Your task to perform on an android device: delete the emails in spam in the gmail app Image 0: 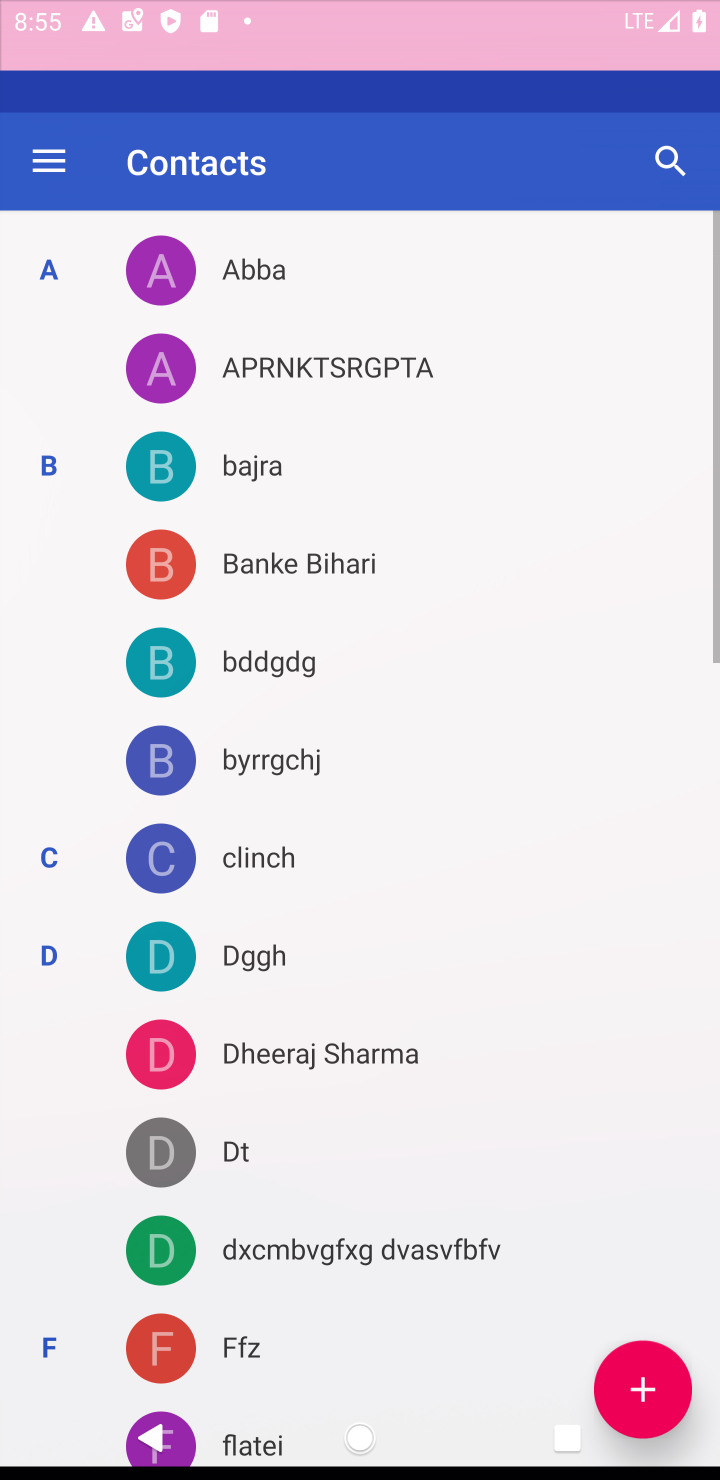
Step 0: click (593, 95)
Your task to perform on an android device: delete the emails in spam in the gmail app Image 1: 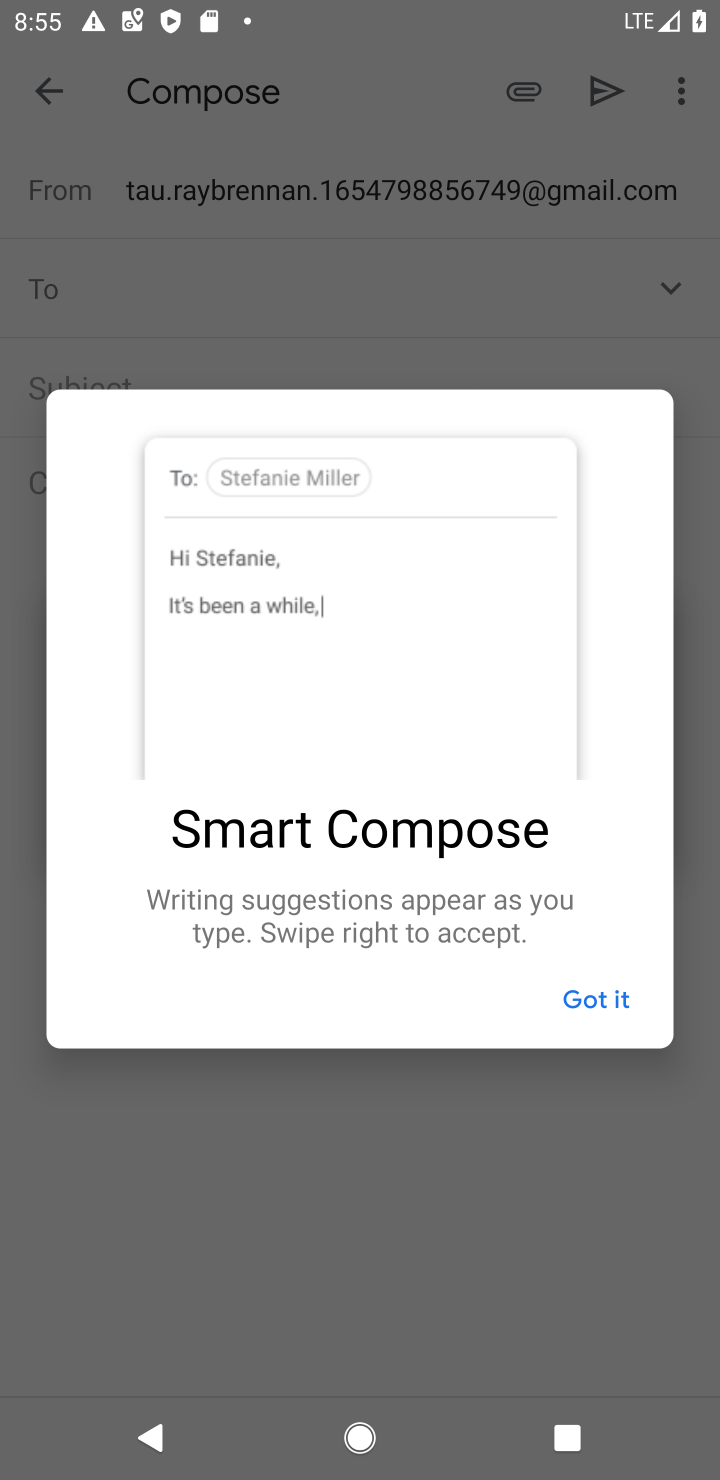
Step 1: click (607, 1009)
Your task to perform on an android device: delete the emails in spam in the gmail app Image 2: 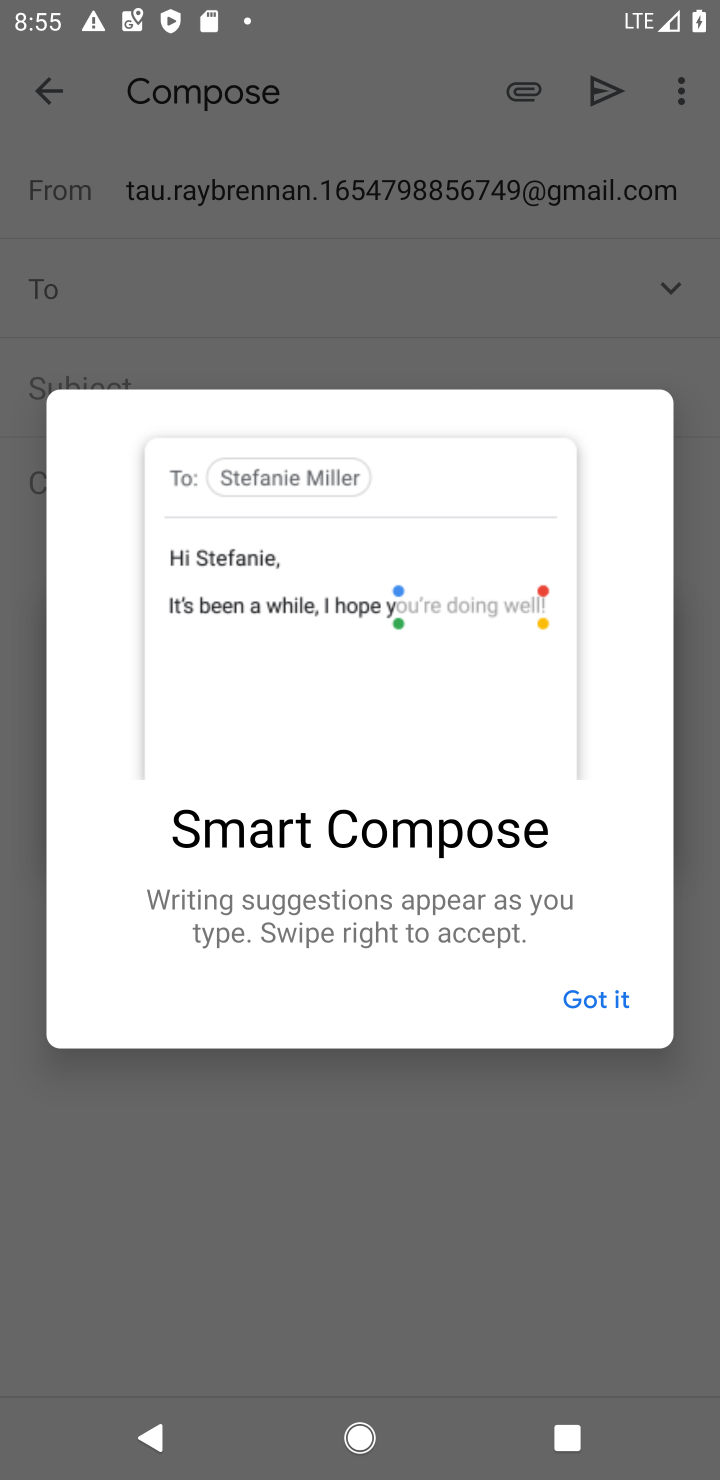
Step 2: press back button
Your task to perform on an android device: delete the emails in spam in the gmail app Image 3: 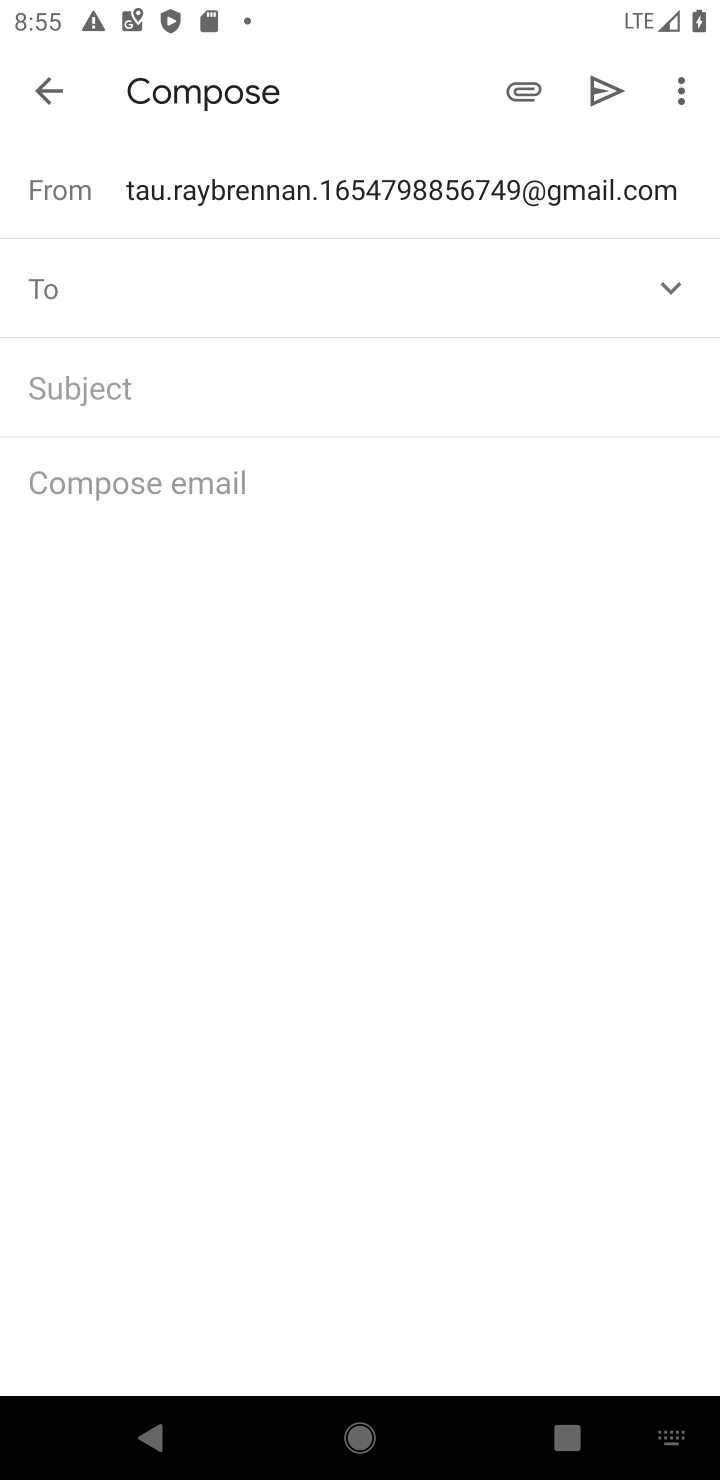
Step 3: press back button
Your task to perform on an android device: delete the emails in spam in the gmail app Image 4: 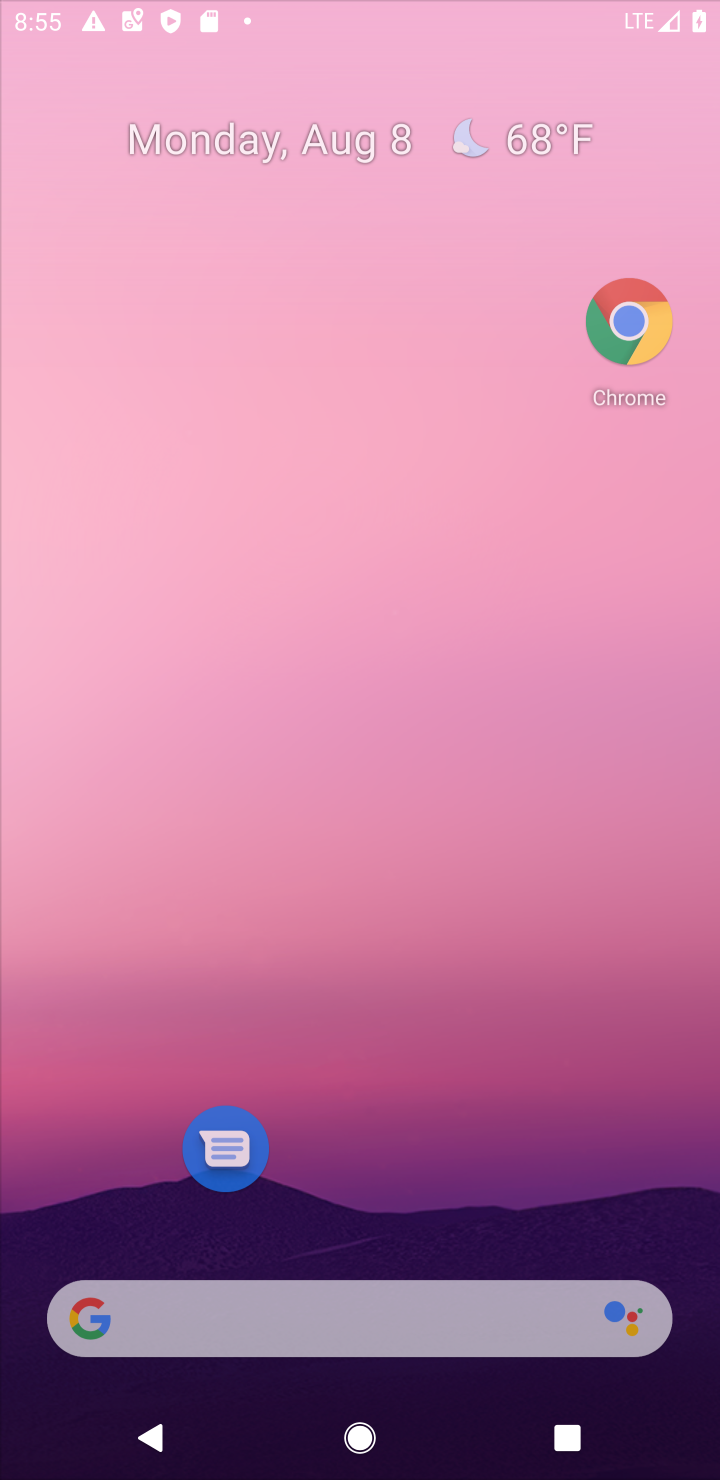
Step 4: press home button
Your task to perform on an android device: delete the emails in spam in the gmail app Image 5: 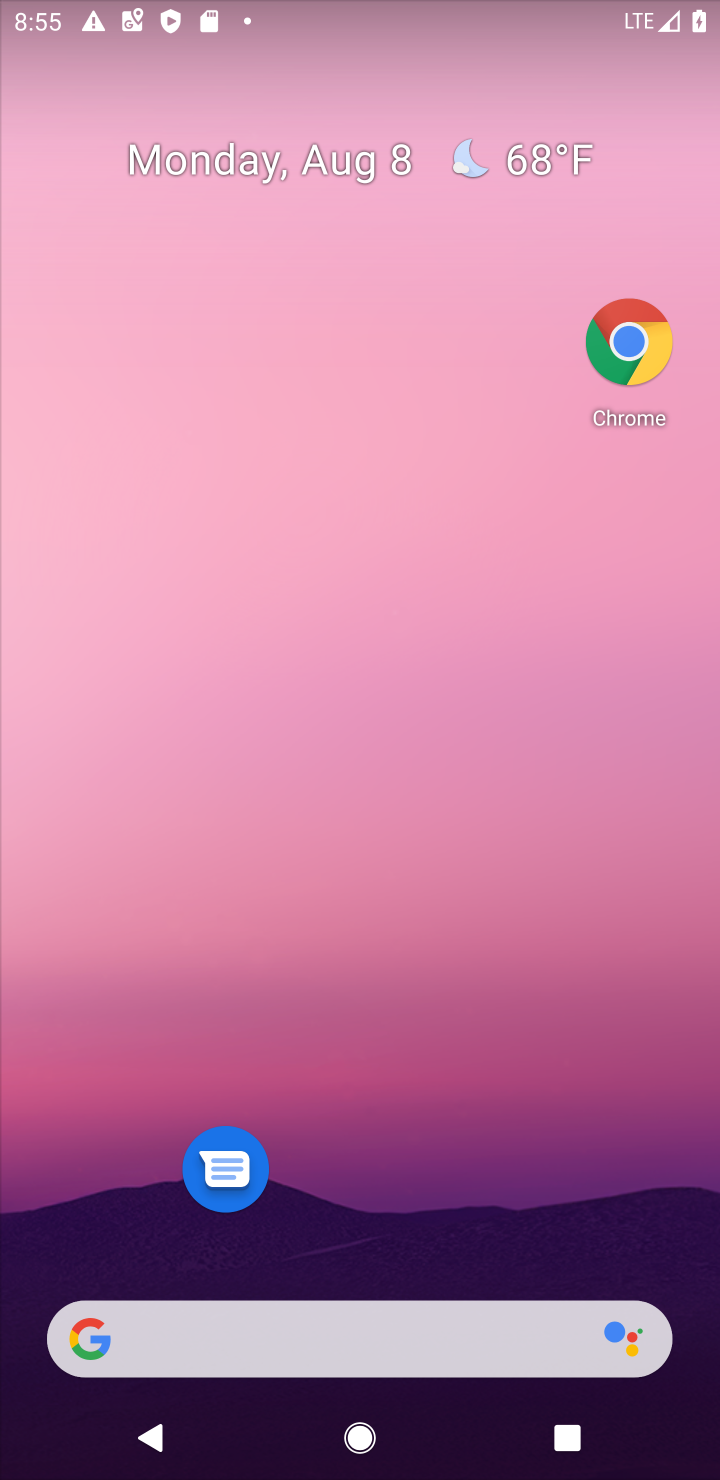
Step 5: drag from (503, 821) to (697, 148)
Your task to perform on an android device: delete the emails in spam in the gmail app Image 6: 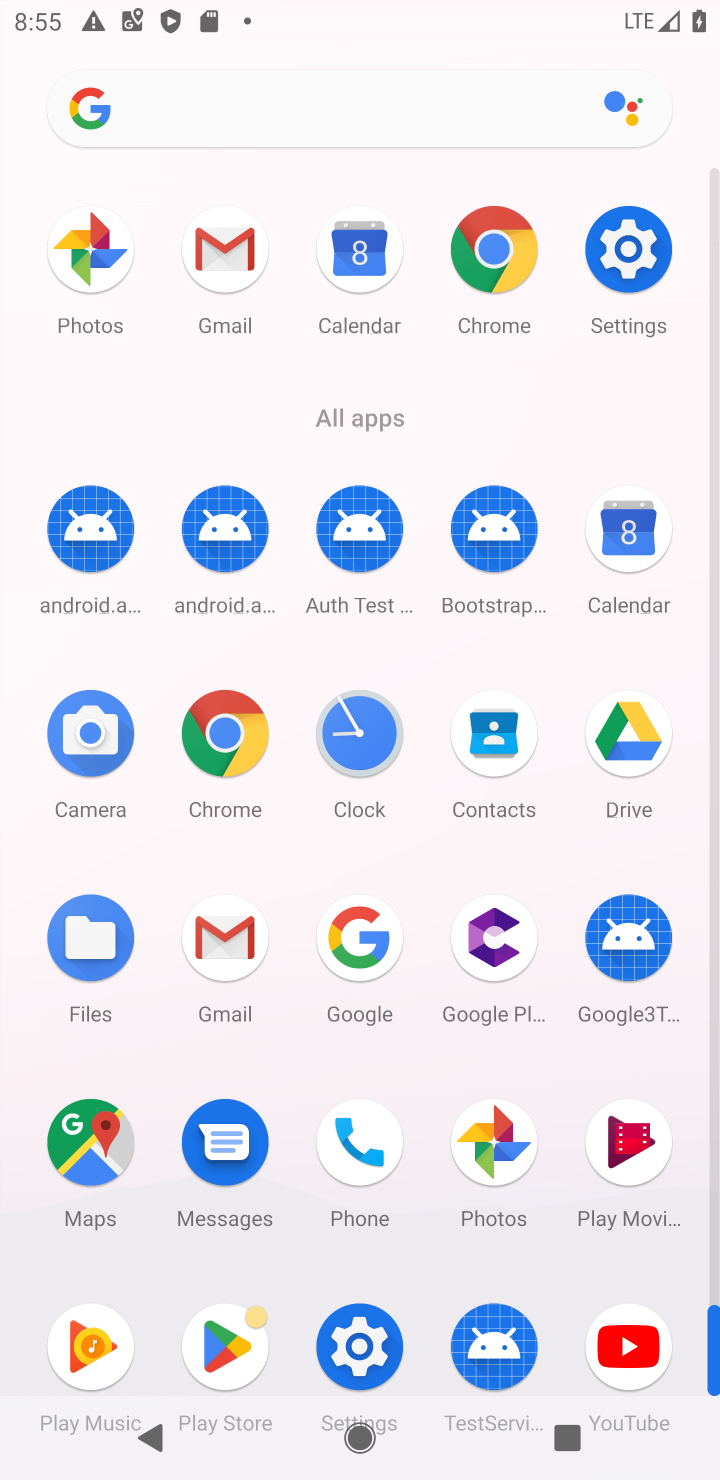
Step 6: click (240, 239)
Your task to perform on an android device: delete the emails in spam in the gmail app Image 7: 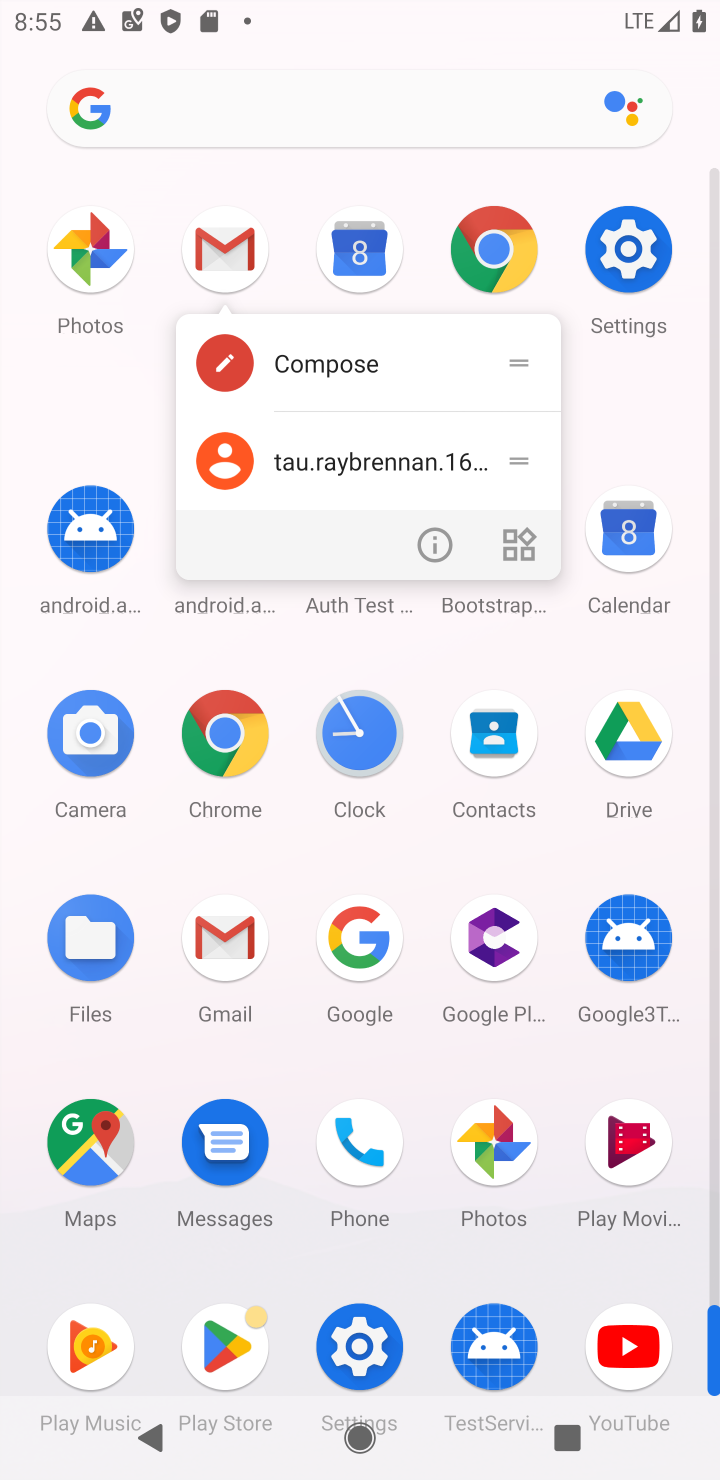
Step 7: click (244, 239)
Your task to perform on an android device: delete the emails in spam in the gmail app Image 8: 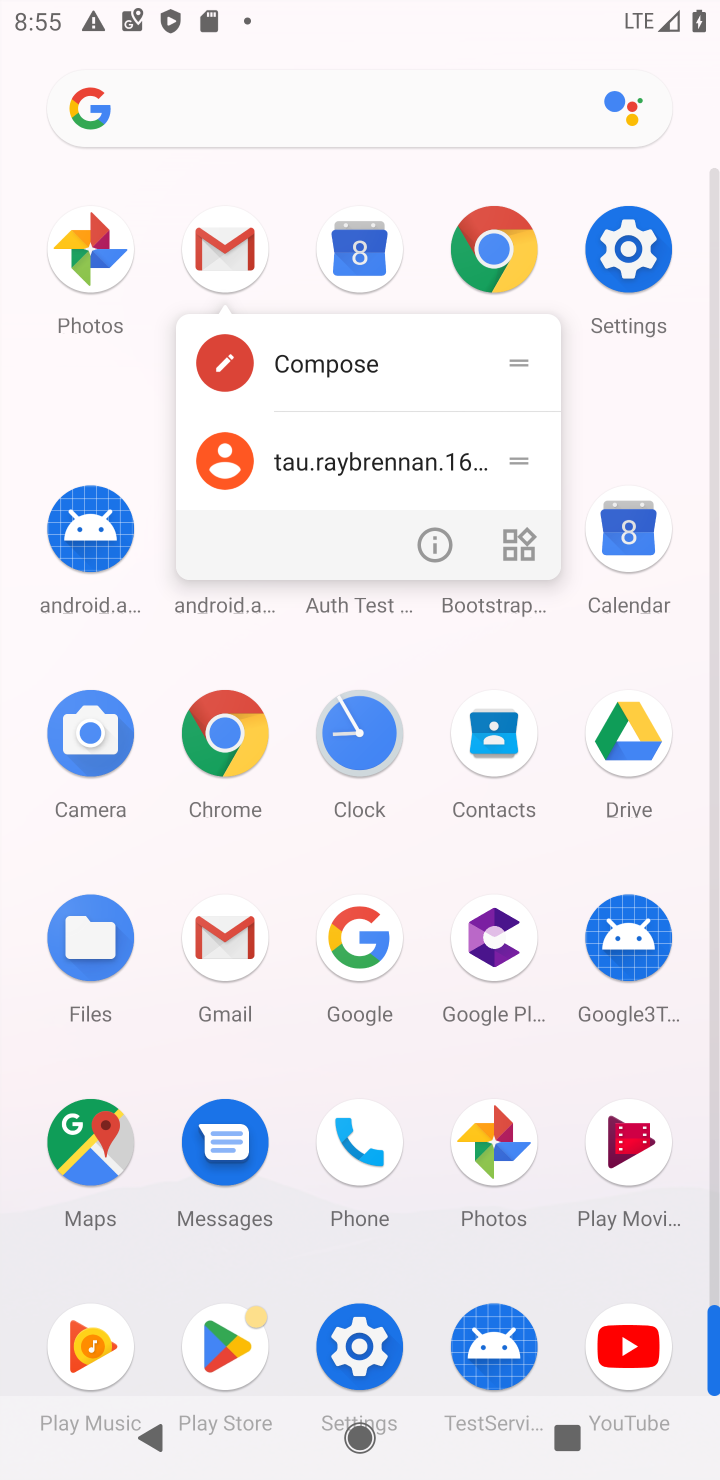
Step 8: click (212, 243)
Your task to perform on an android device: delete the emails in spam in the gmail app Image 9: 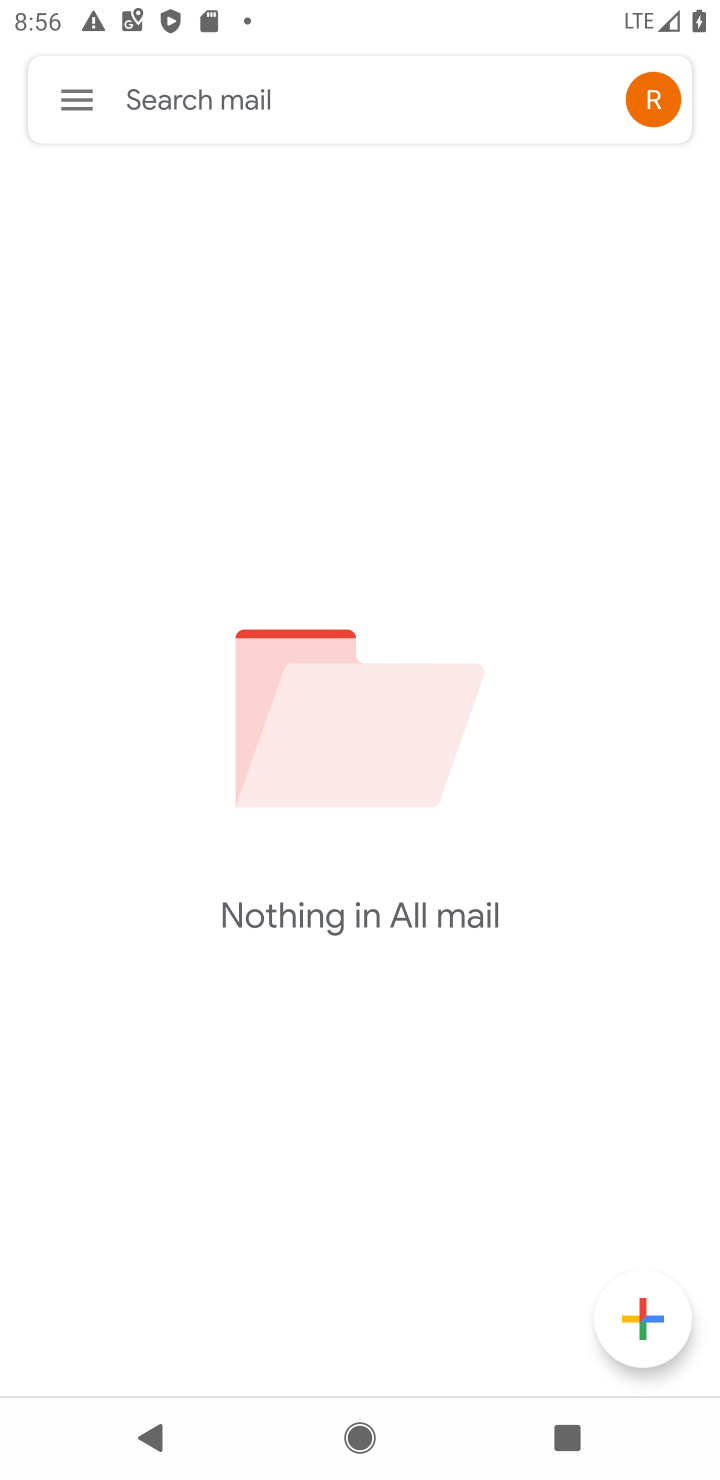
Step 9: click (66, 96)
Your task to perform on an android device: delete the emails in spam in the gmail app Image 10: 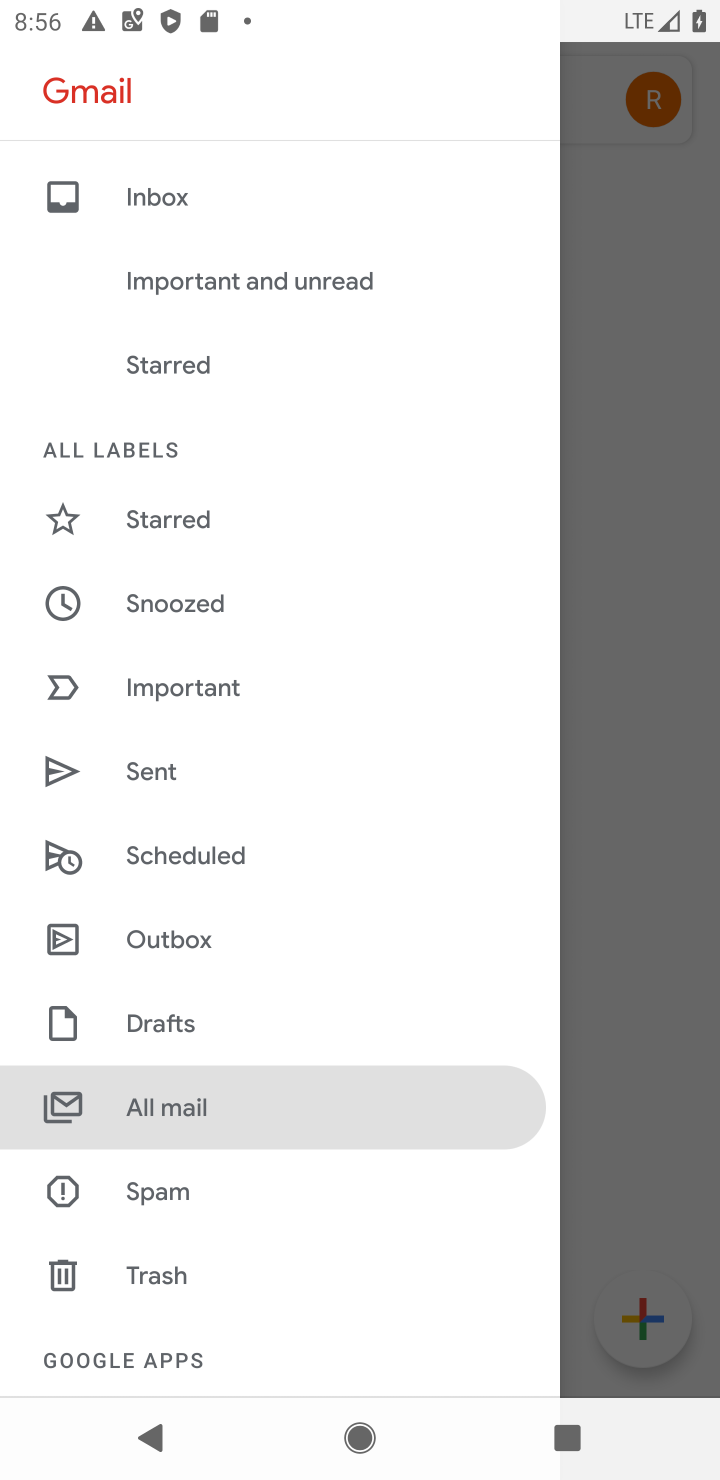
Step 10: click (170, 1190)
Your task to perform on an android device: delete the emails in spam in the gmail app Image 11: 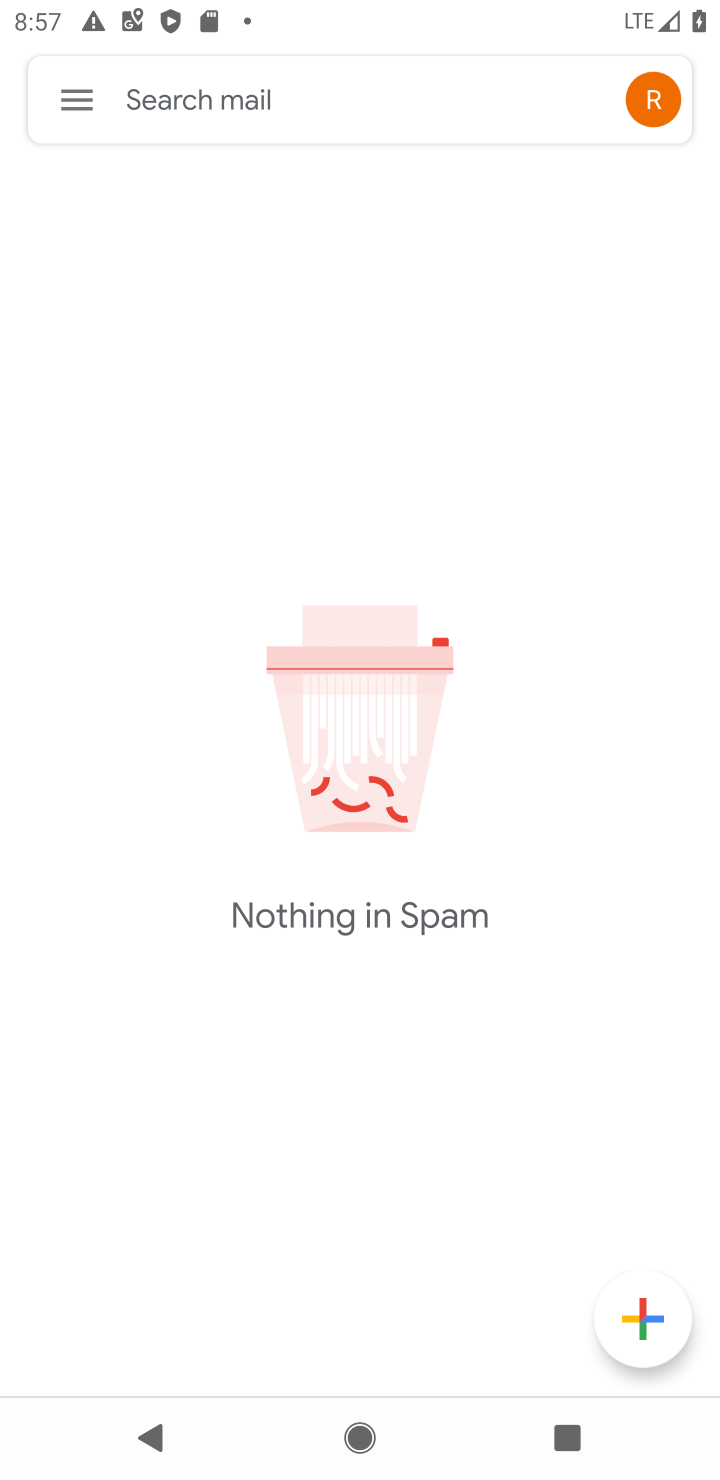
Step 11: task complete